Your task to perform on an android device: delete a single message in the gmail app Image 0: 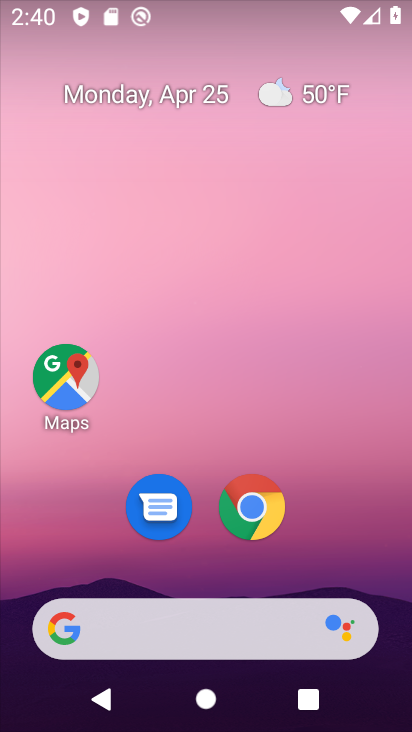
Step 0: drag from (391, 602) to (365, 121)
Your task to perform on an android device: delete a single message in the gmail app Image 1: 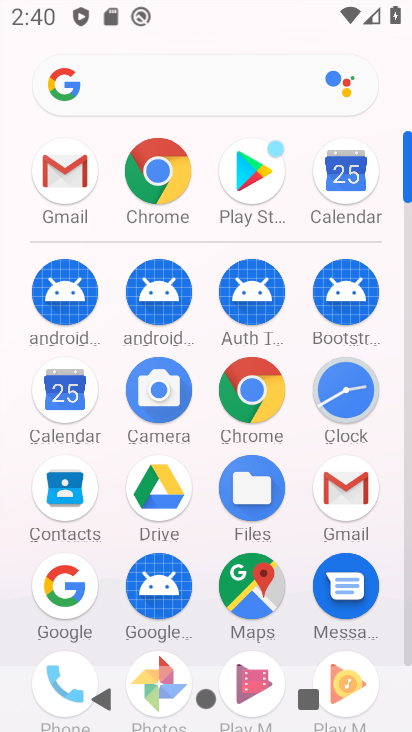
Step 1: click (407, 636)
Your task to perform on an android device: delete a single message in the gmail app Image 2: 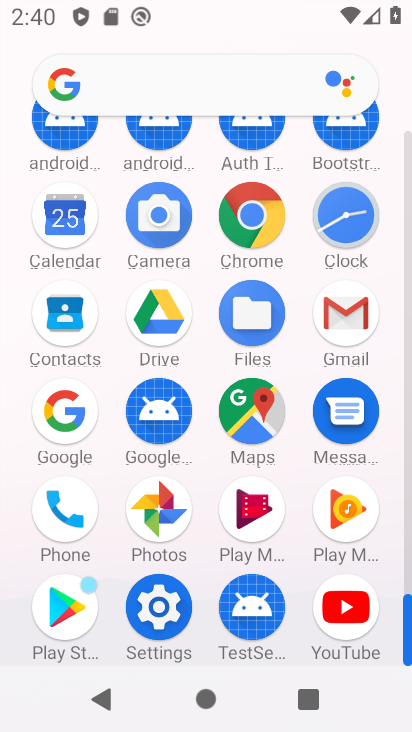
Step 2: click (345, 314)
Your task to perform on an android device: delete a single message in the gmail app Image 3: 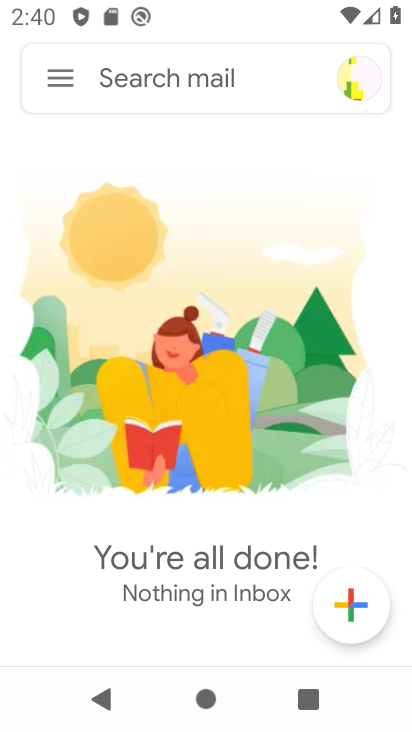
Step 3: click (60, 78)
Your task to perform on an android device: delete a single message in the gmail app Image 4: 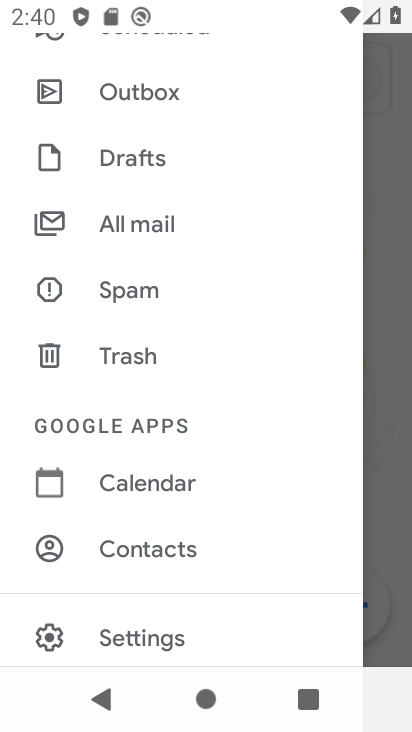
Step 4: click (146, 213)
Your task to perform on an android device: delete a single message in the gmail app Image 5: 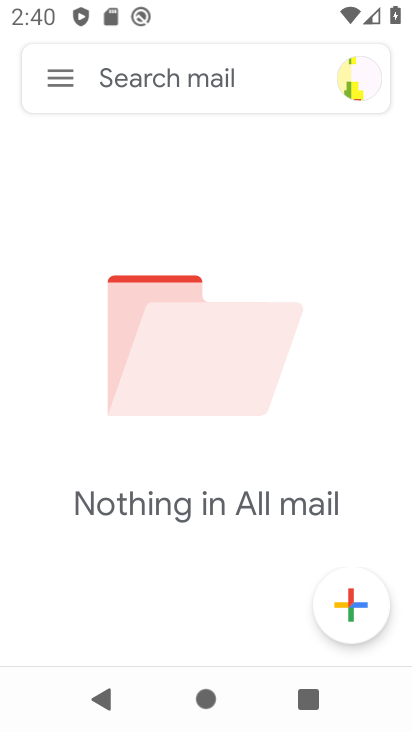
Step 5: task complete